Your task to perform on an android device: Open accessibility settings Image 0: 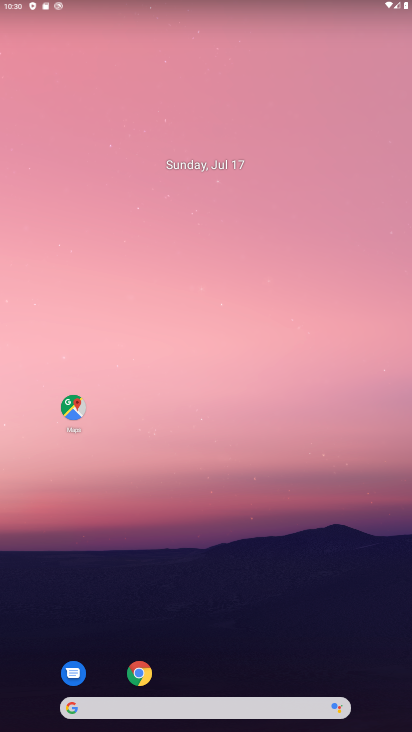
Step 0: drag from (183, 676) to (228, 60)
Your task to perform on an android device: Open accessibility settings Image 1: 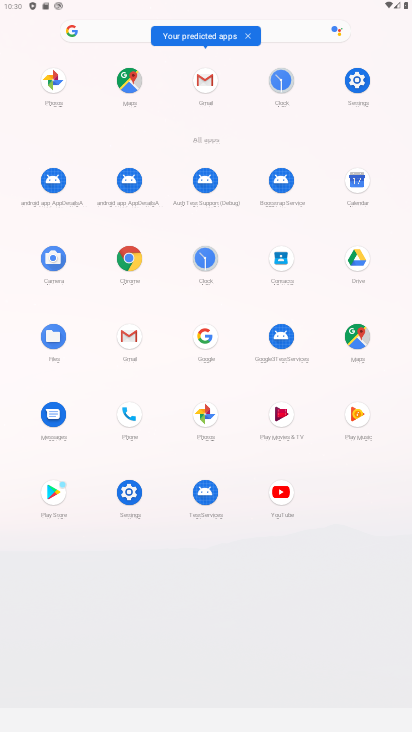
Step 1: click (131, 491)
Your task to perform on an android device: Open accessibility settings Image 2: 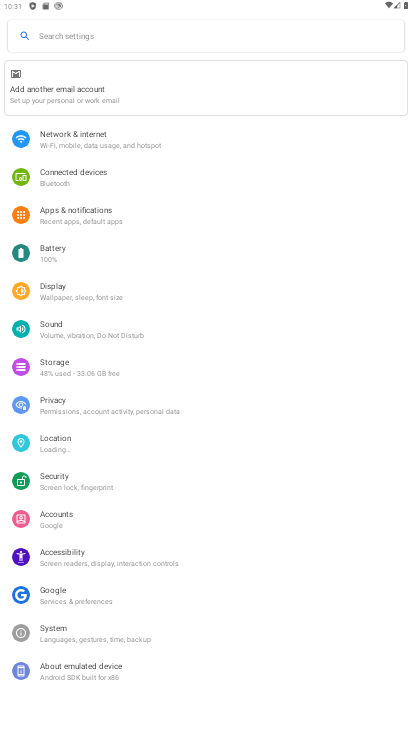
Step 2: click (91, 556)
Your task to perform on an android device: Open accessibility settings Image 3: 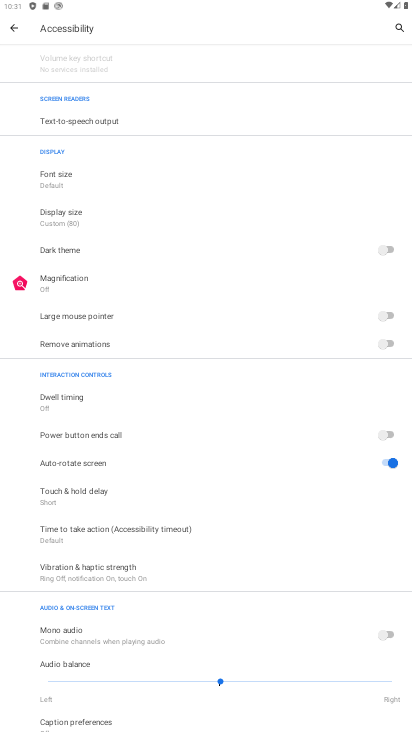
Step 3: task complete